Your task to perform on an android device: add a contact in the contacts app Image 0: 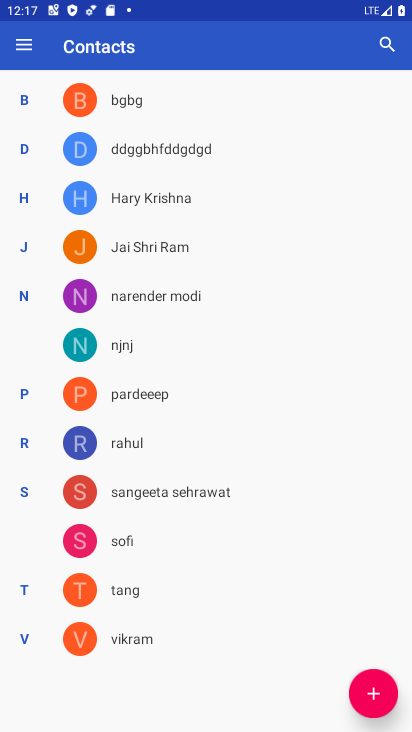
Step 0: press home button
Your task to perform on an android device: add a contact in the contacts app Image 1: 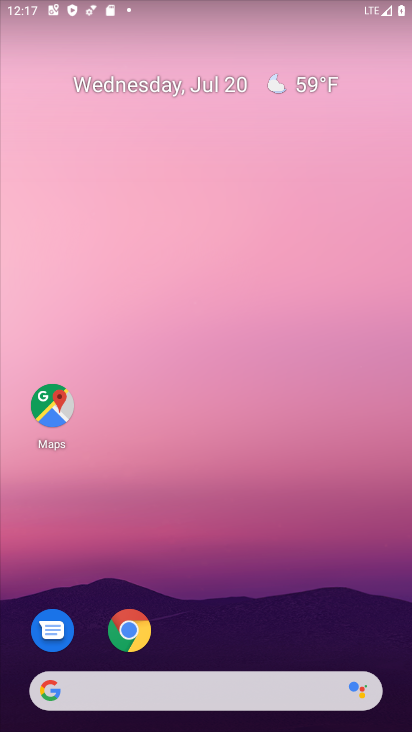
Step 1: drag from (249, 720) to (262, 281)
Your task to perform on an android device: add a contact in the contacts app Image 2: 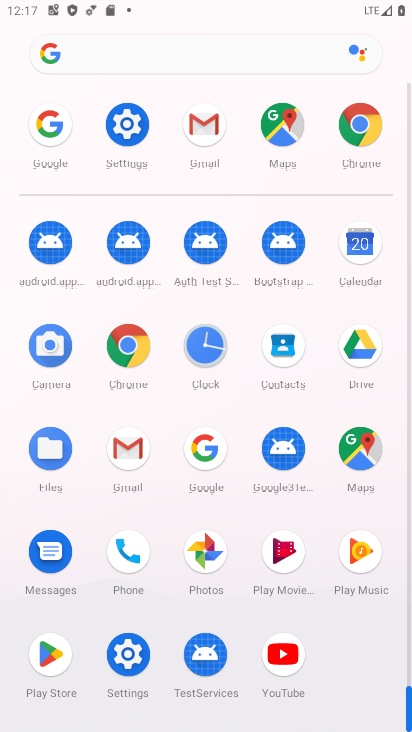
Step 2: drag from (191, 455) to (182, 356)
Your task to perform on an android device: add a contact in the contacts app Image 3: 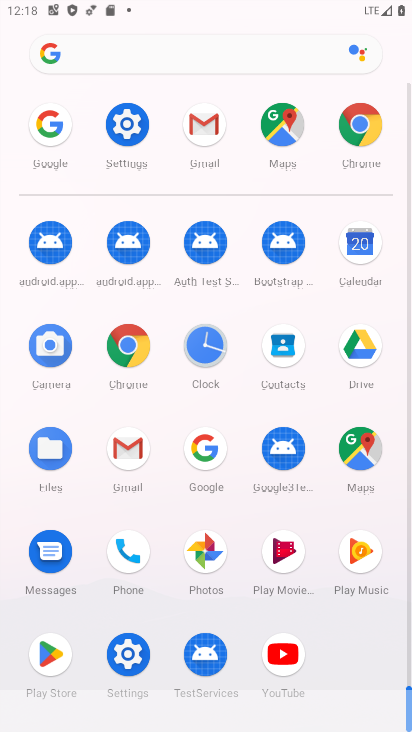
Step 3: click (278, 353)
Your task to perform on an android device: add a contact in the contacts app Image 4: 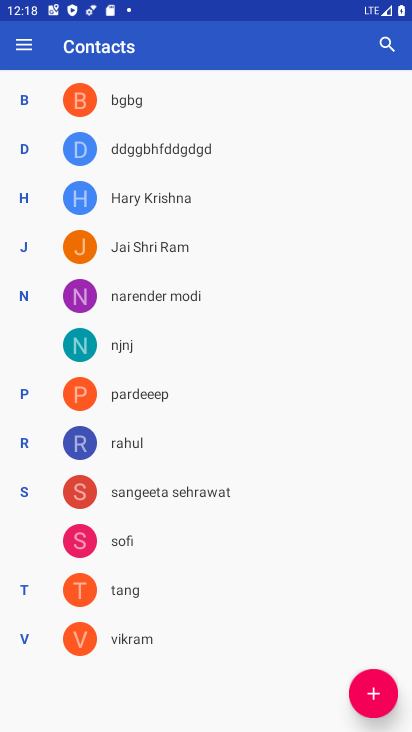
Step 4: click (374, 709)
Your task to perform on an android device: add a contact in the contacts app Image 5: 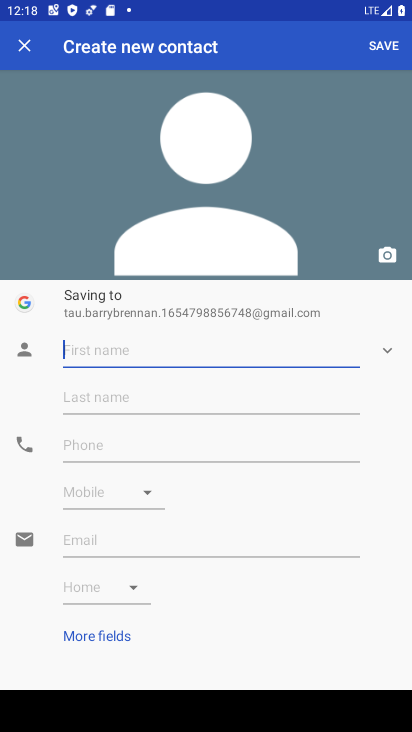
Step 5: type "hsdazxcfvgh"
Your task to perform on an android device: add a contact in the contacts app Image 6: 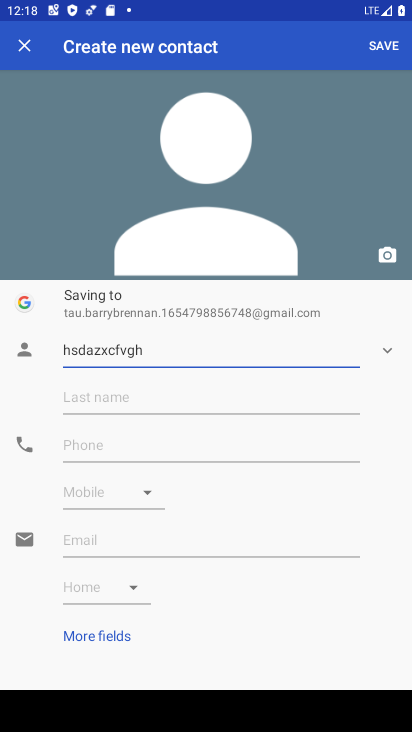
Step 6: click (212, 457)
Your task to perform on an android device: add a contact in the contacts app Image 7: 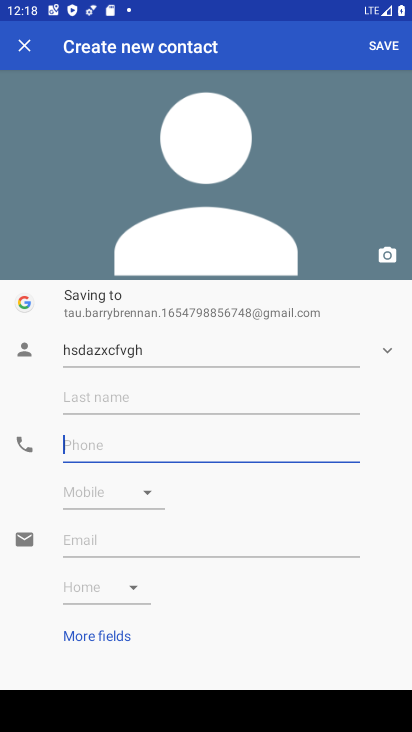
Step 7: type "876543568"
Your task to perform on an android device: add a contact in the contacts app Image 8: 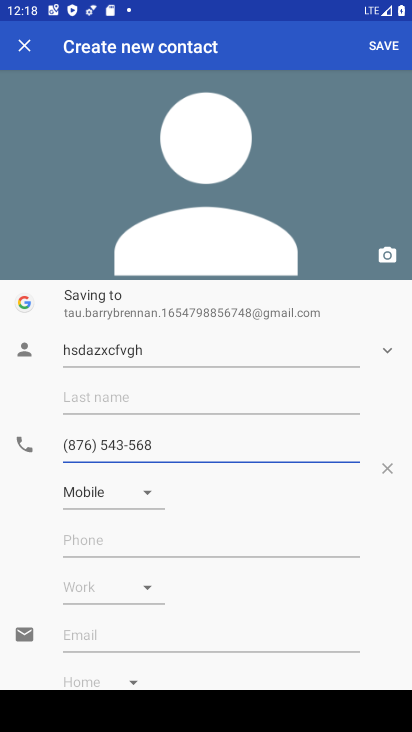
Step 8: click (394, 25)
Your task to perform on an android device: add a contact in the contacts app Image 9: 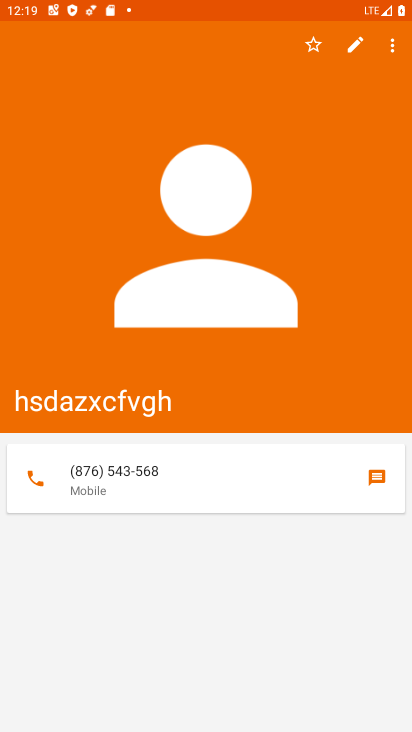
Step 9: task complete